Your task to perform on an android device: toggle pop-ups in chrome Image 0: 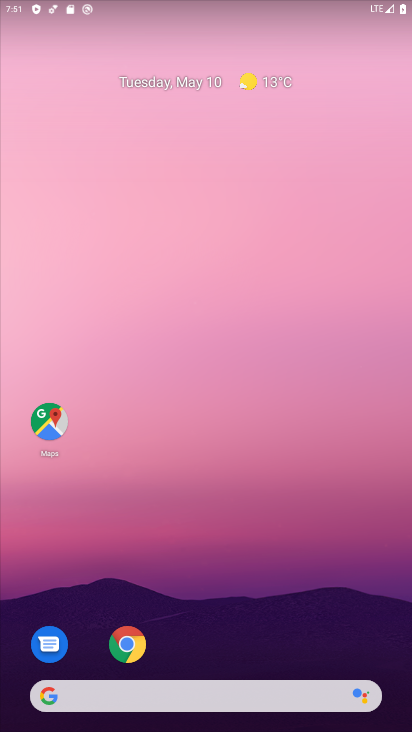
Step 0: drag from (246, 558) to (258, 143)
Your task to perform on an android device: toggle pop-ups in chrome Image 1: 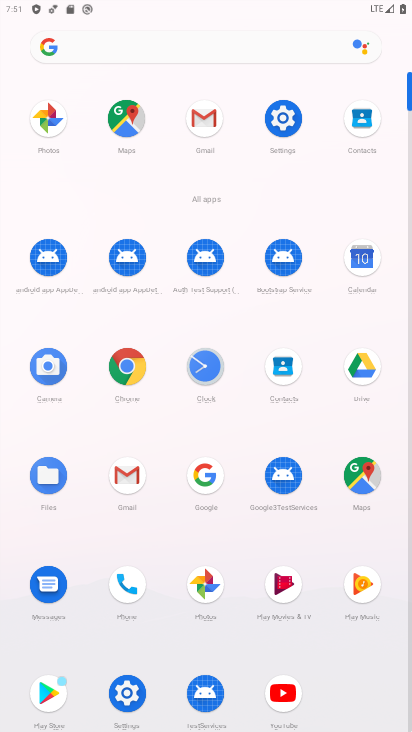
Step 1: click (130, 374)
Your task to perform on an android device: toggle pop-ups in chrome Image 2: 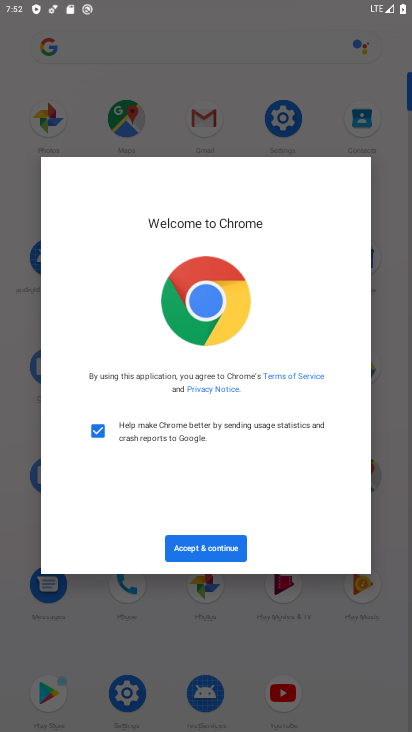
Step 2: click (220, 546)
Your task to perform on an android device: toggle pop-ups in chrome Image 3: 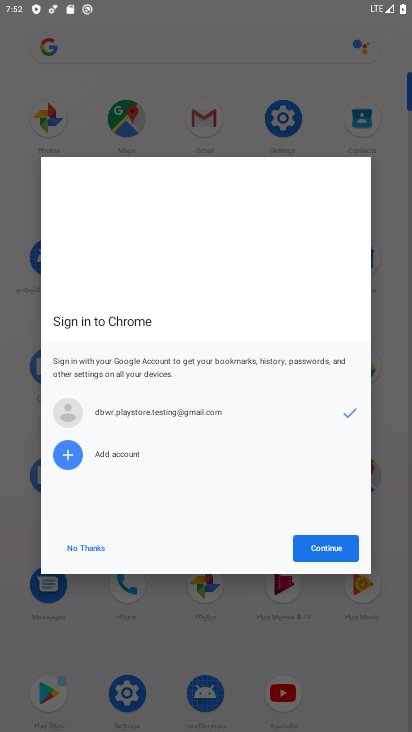
Step 3: click (329, 546)
Your task to perform on an android device: toggle pop-ups in chrome Image 4: 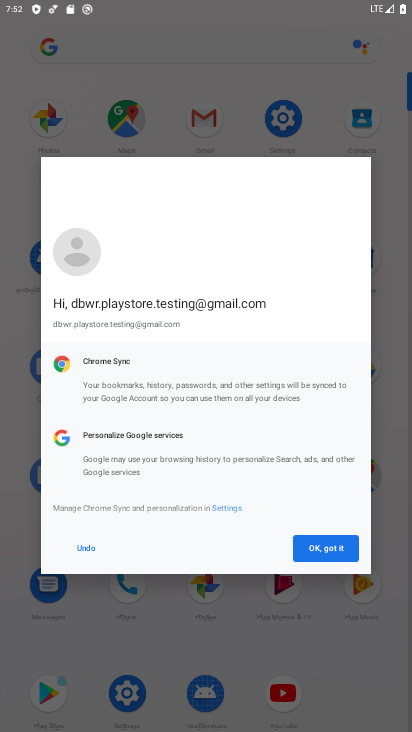
Step 4: click (333, 548)
Your task to perform on an android device: toggle pop-ups in chrome Image 5: 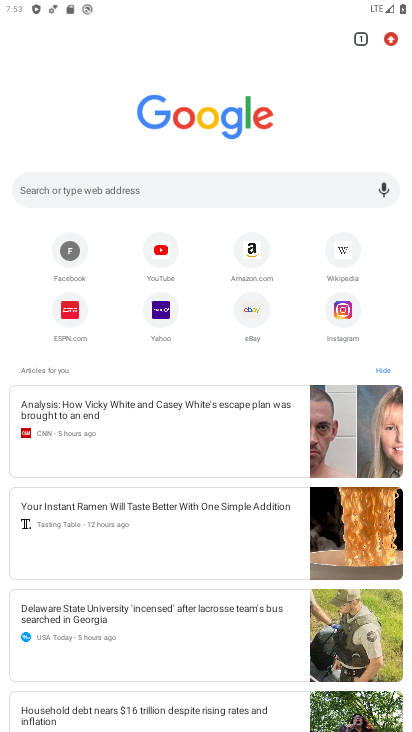
Step 5: click (391, 44)
Your task to perform on an android device: toggle pop-ups in chrome Image 6: 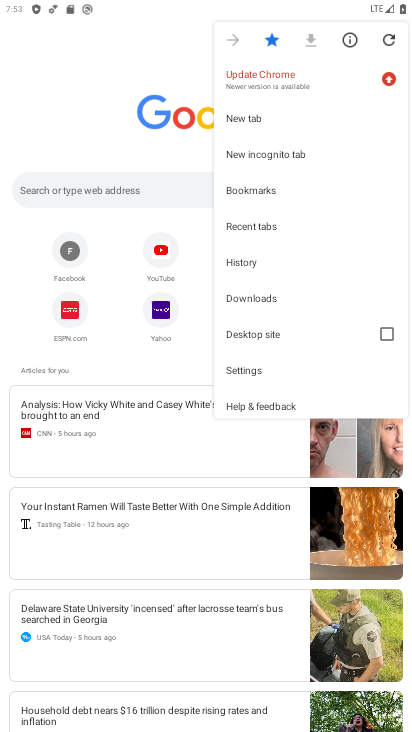
Step 6: click (267, 369)
Your task to perform on an android device: toggle pop-ups in chrome Image 7: 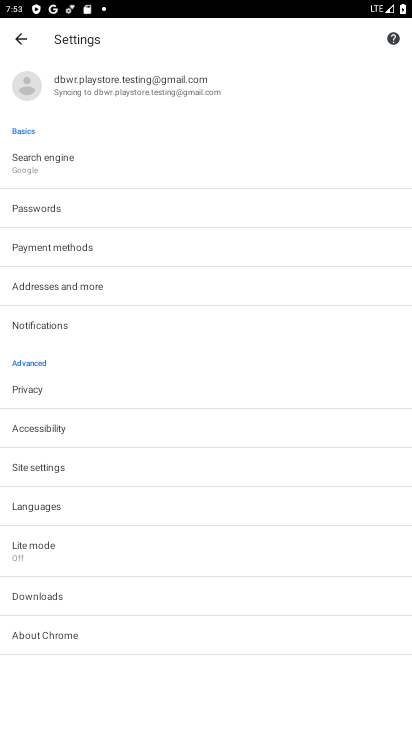
Step 7: drag from (83, 579) to (79, 359)
Your task to perform on an android device: toggle pop-ups in chrome Image 8: 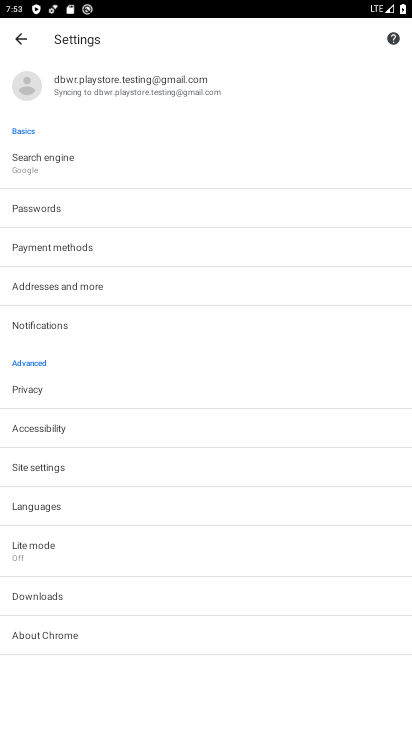
Step 8: click (55, 474)
Your task to perform on an android device: toggle pop-ups in chrome Image 9: 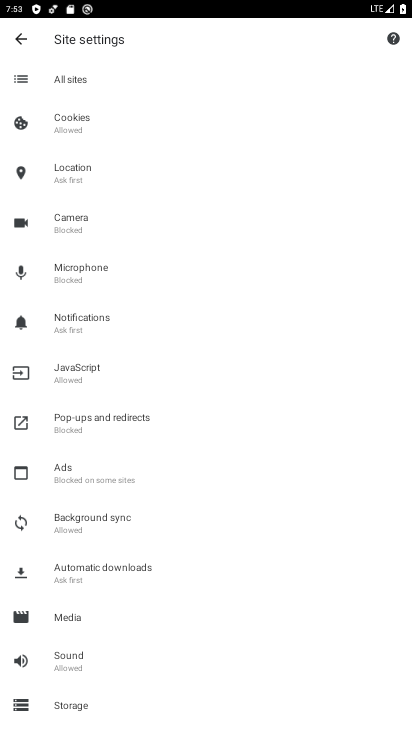
Step 9: drag from (279, 256) to (261, 500)
Your task to perform on an android device: toggle pop-ups in chrome Image 10: 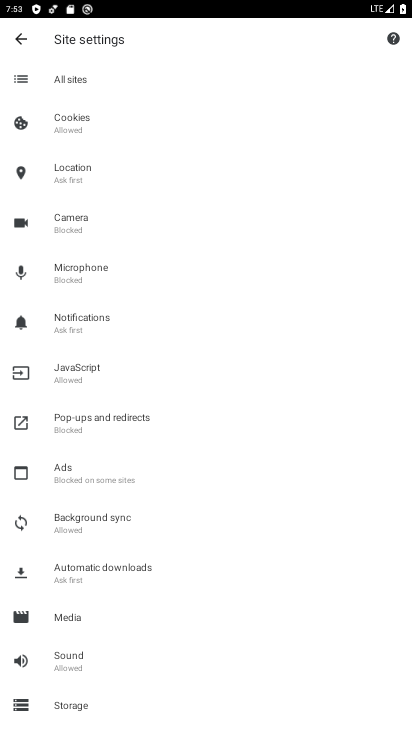
Step 10: drag from (146, 576) to (146, 269)
Your task to perform on an android device: toggle pop-ups in chrome Image 11: 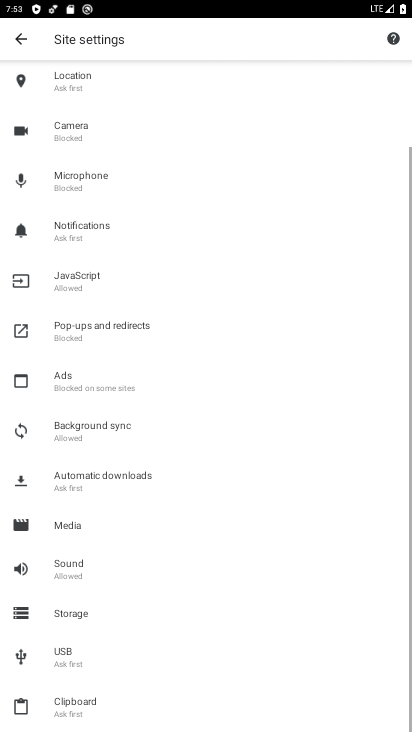
Step 11: click (129, 340)
Your task to perform on an android device: toggle pop-ups in chrome Image 12: 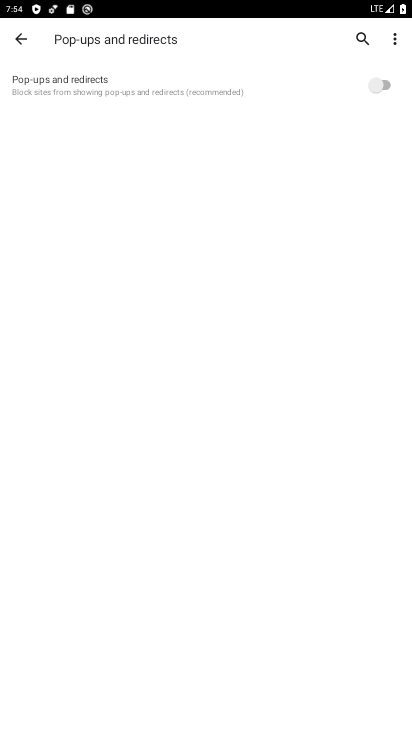
Step 12: click (392, 84)
Your task to perform on an android device: toggle pop-ups in chrome Image 13: 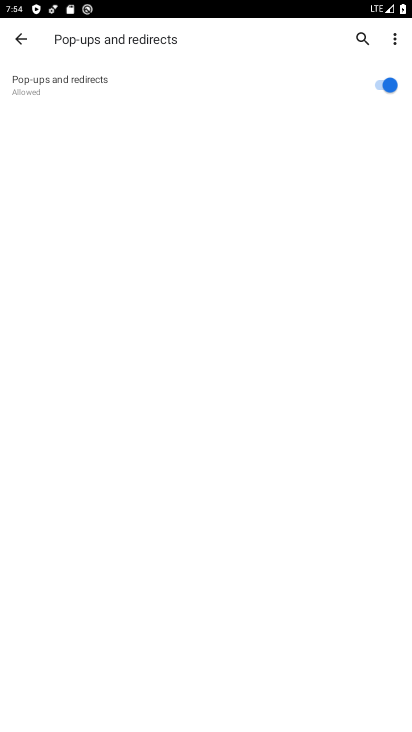
Step 13: task complete